Your task to perform on an android device: Show me the alarms in the clock app Image 0: 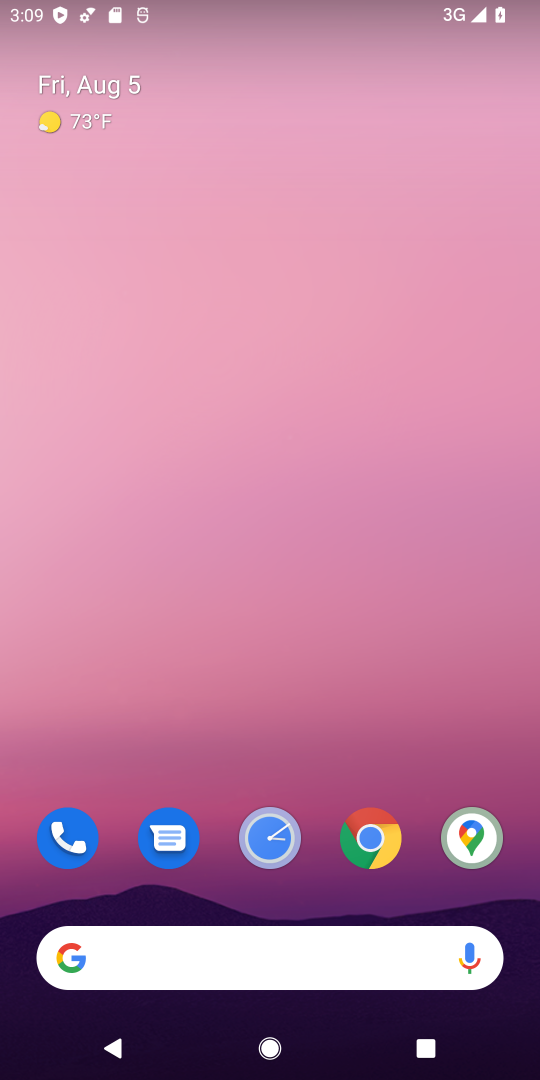
Step 0: drag from (326, 815) to (326, 234)
Your task to perform on an android device: Show me the alarms in the clock app Image 1: 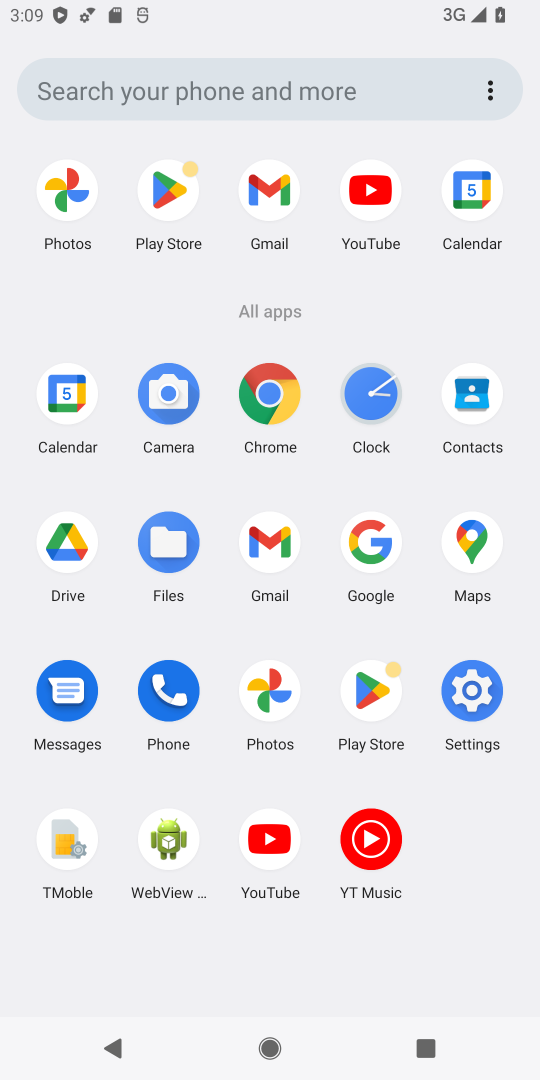
Step 1: click (389, 383)
Your task to perform on an android device: Show me the alarms in the clock app Image 2: 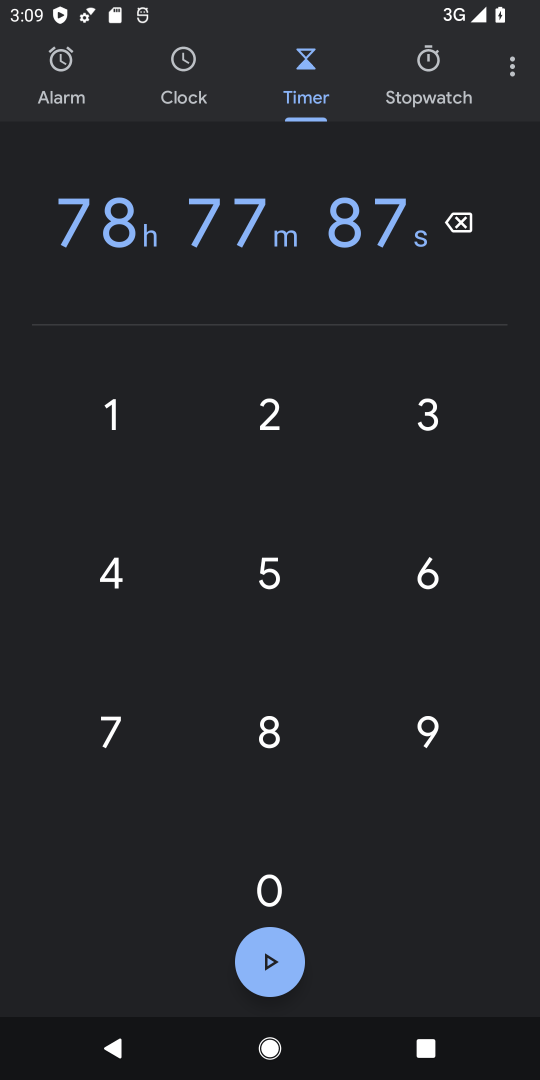
Step 2: click (77, 66)
Your task to perform on an android device: Show me the alarms in the clock app Image 3: 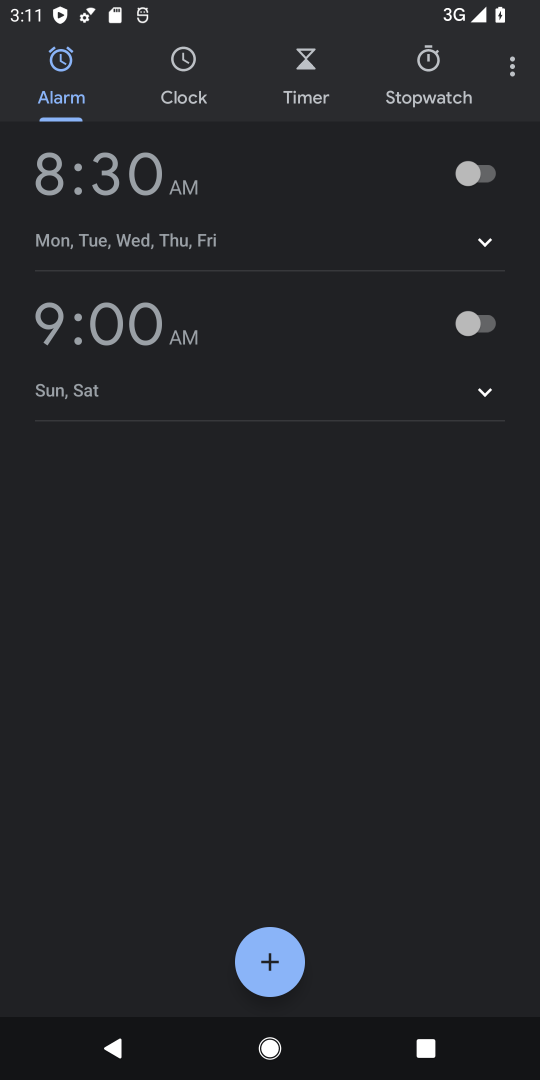
Step 3: task complete